Your task to perform on an android device: open app "PlayWell" (install if not already installed) Image 0: 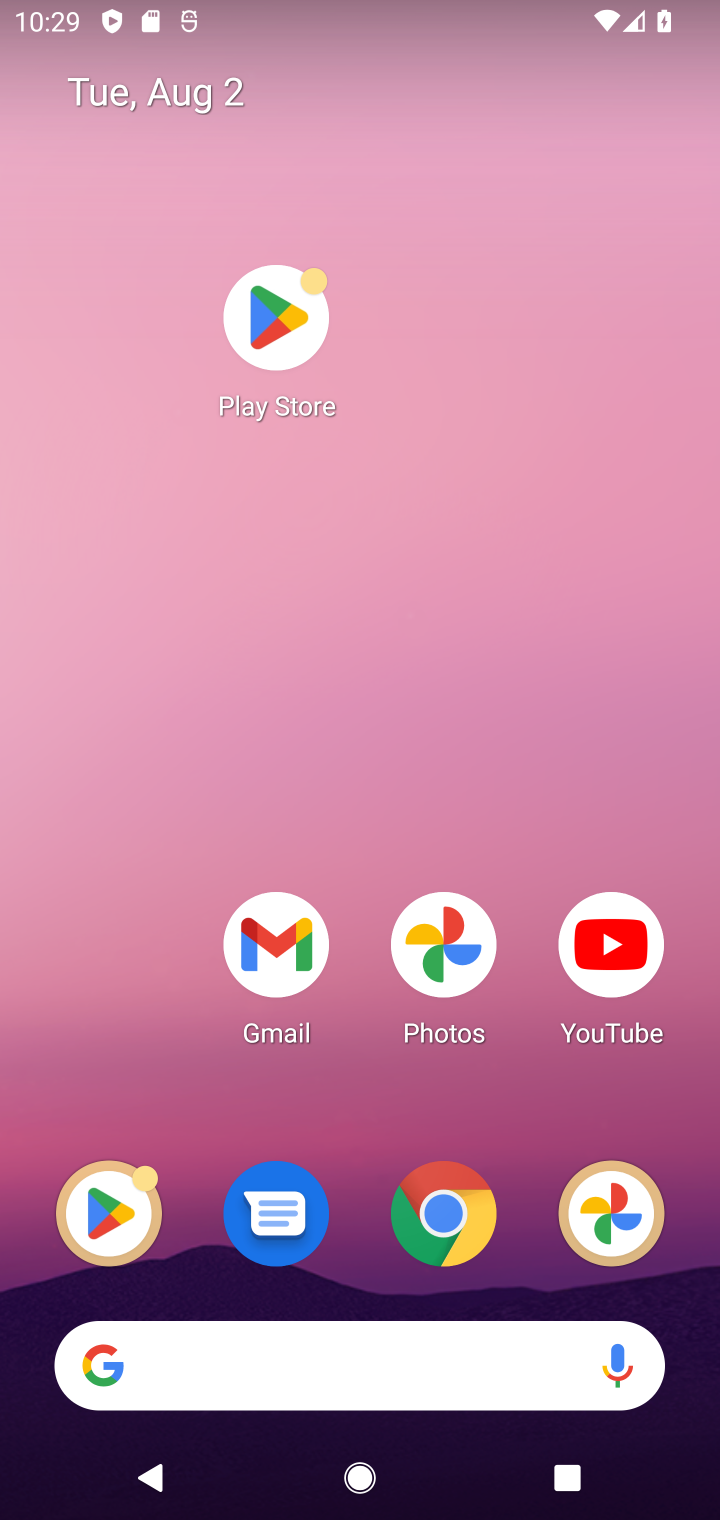
Step 0: click (275, 337)
Your task to perform on an android device: open app "PlayWell" (install if not already installed) Image 1: 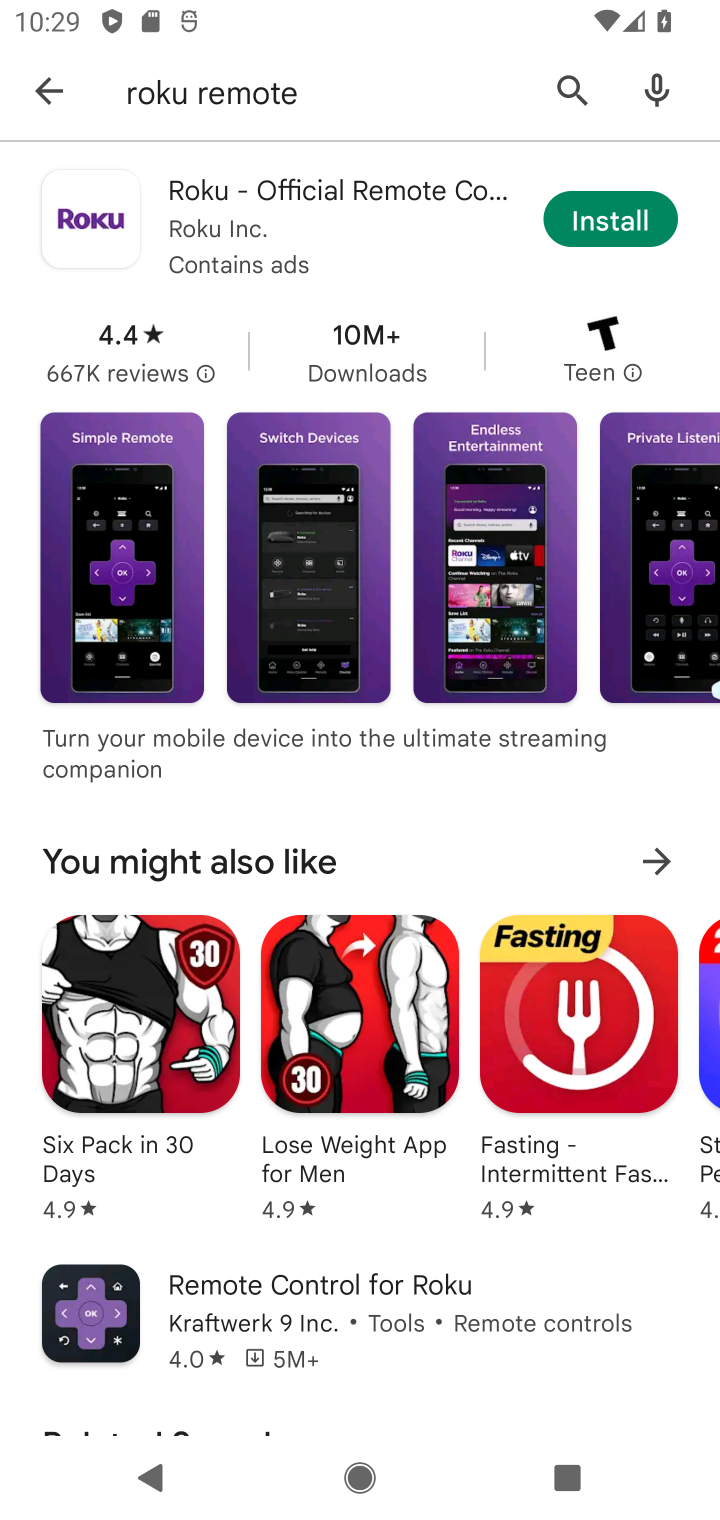
Step 1: click (358, 92)
Your task to perform on an android device: open app "PlayWell" (install if not already installed) Image 2: 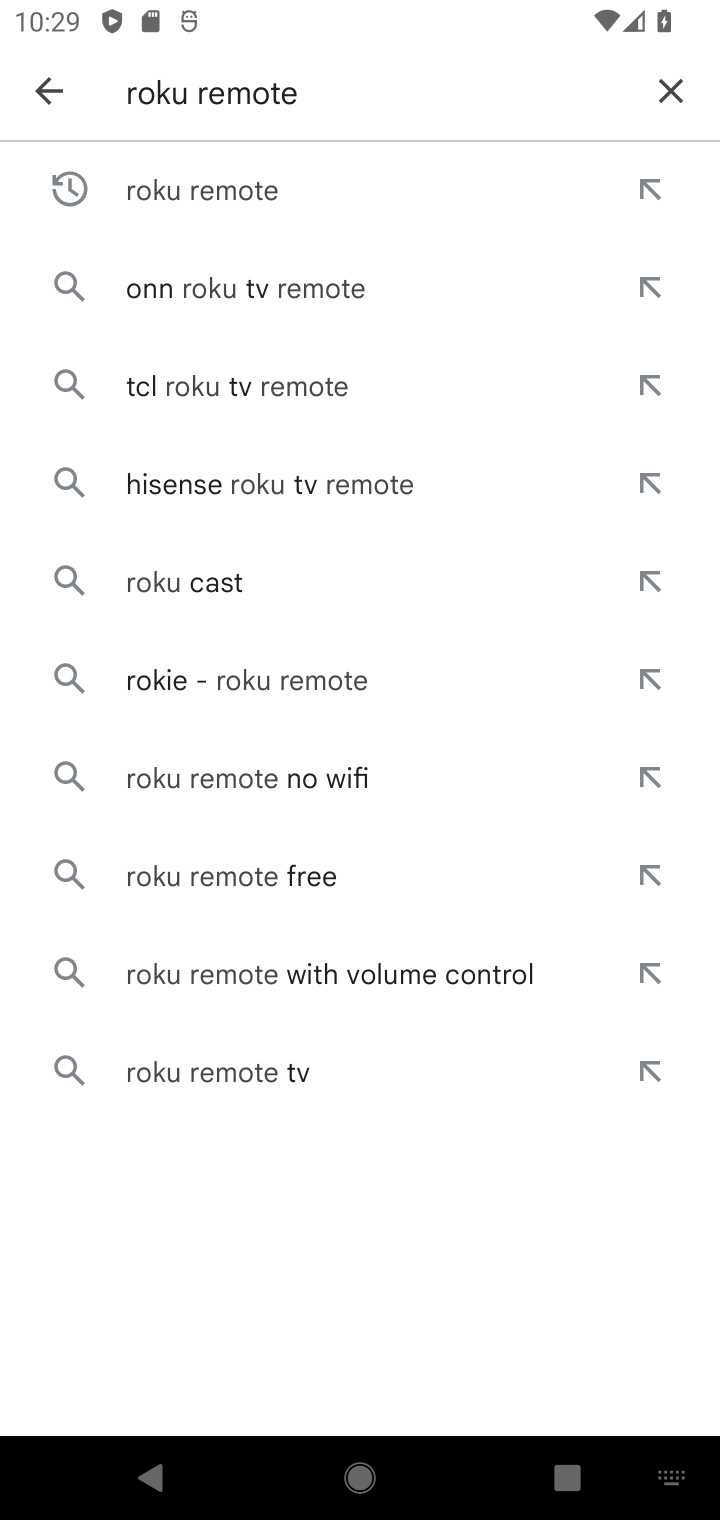
Step 2: click (680, 82)
Your task to perform on an android device: open app "PlayWell" (install if not already installed) Image 3: 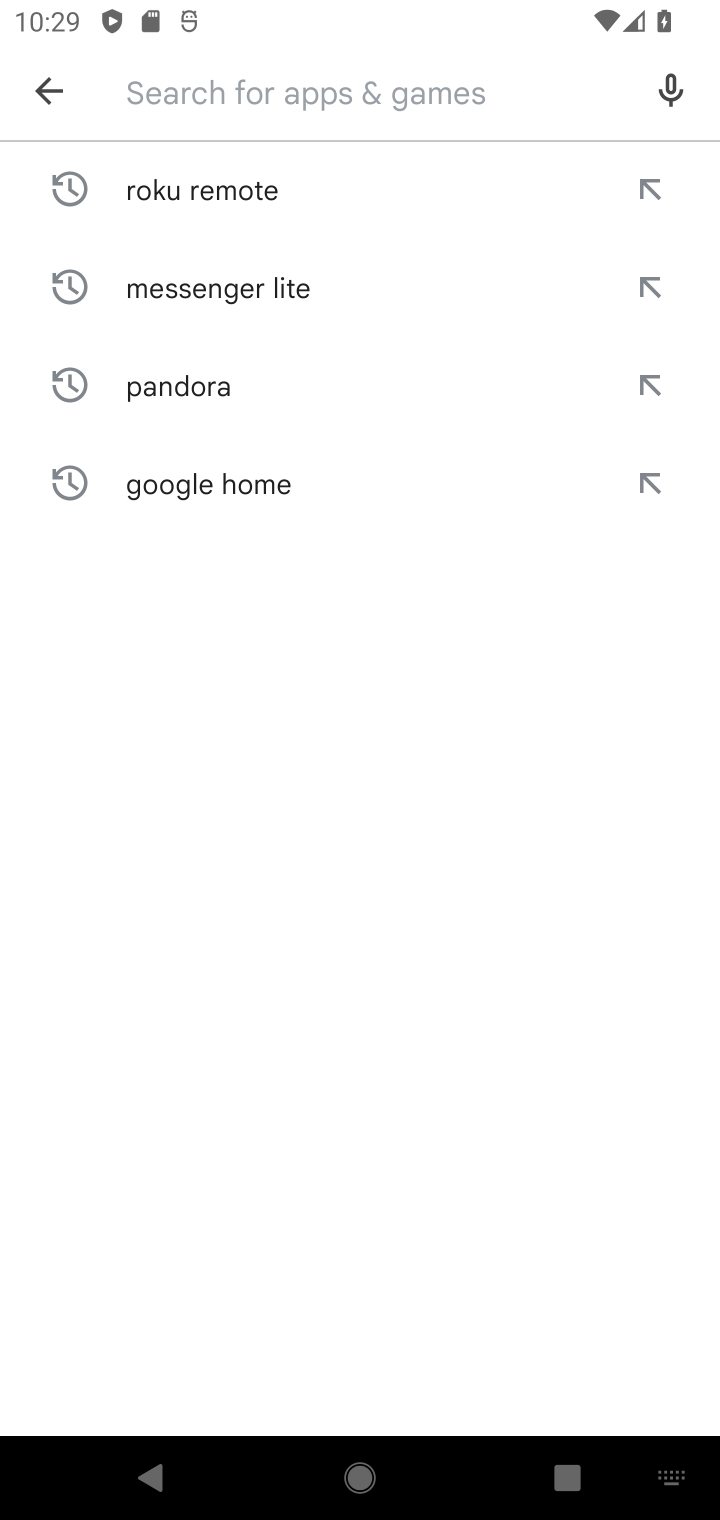
Step 3: type "playwell"
Your task to perform on an android device: open app "PlayWell" (install if not already installed) Image 4: 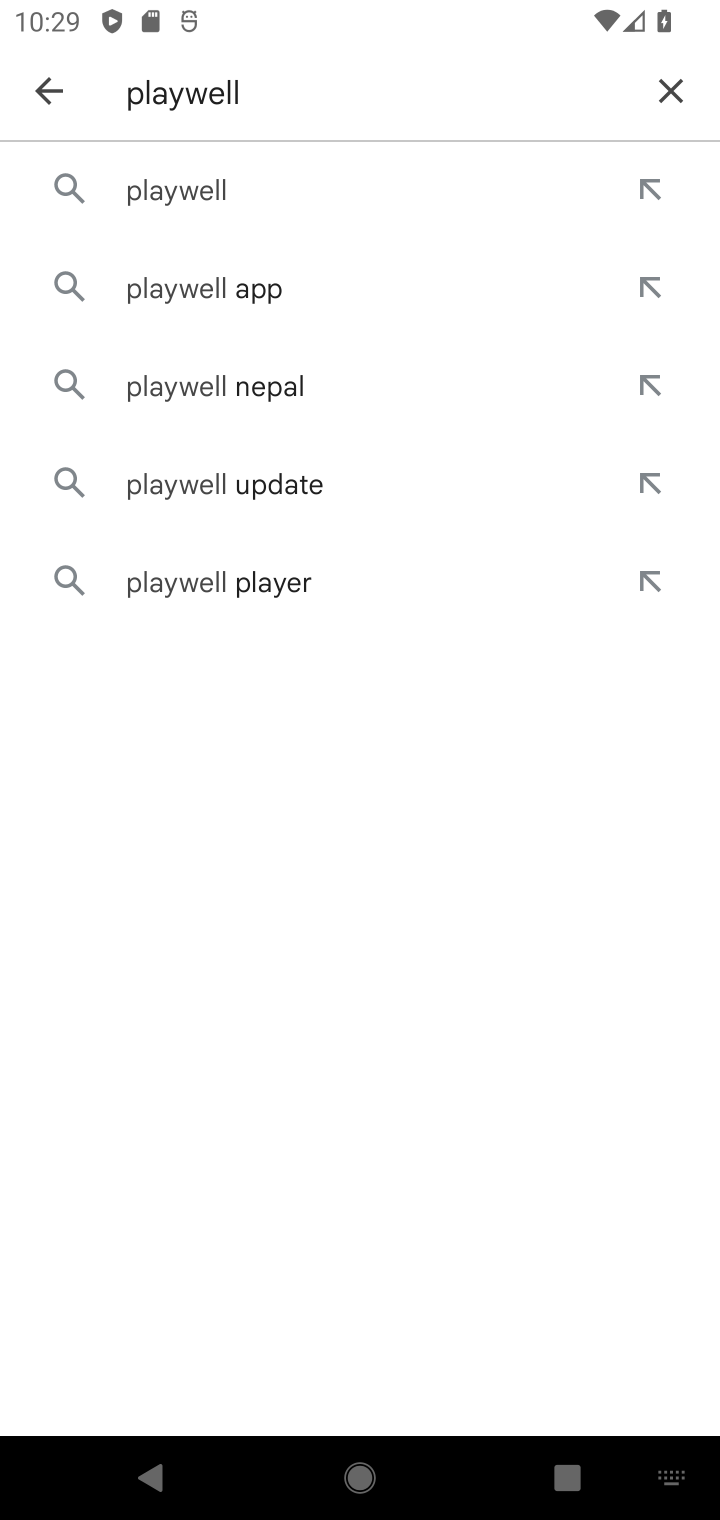
Step 4: click (274, 195)
Your task to perform on an android device: open app "PlayWell" (install if not already installed) Image 5: 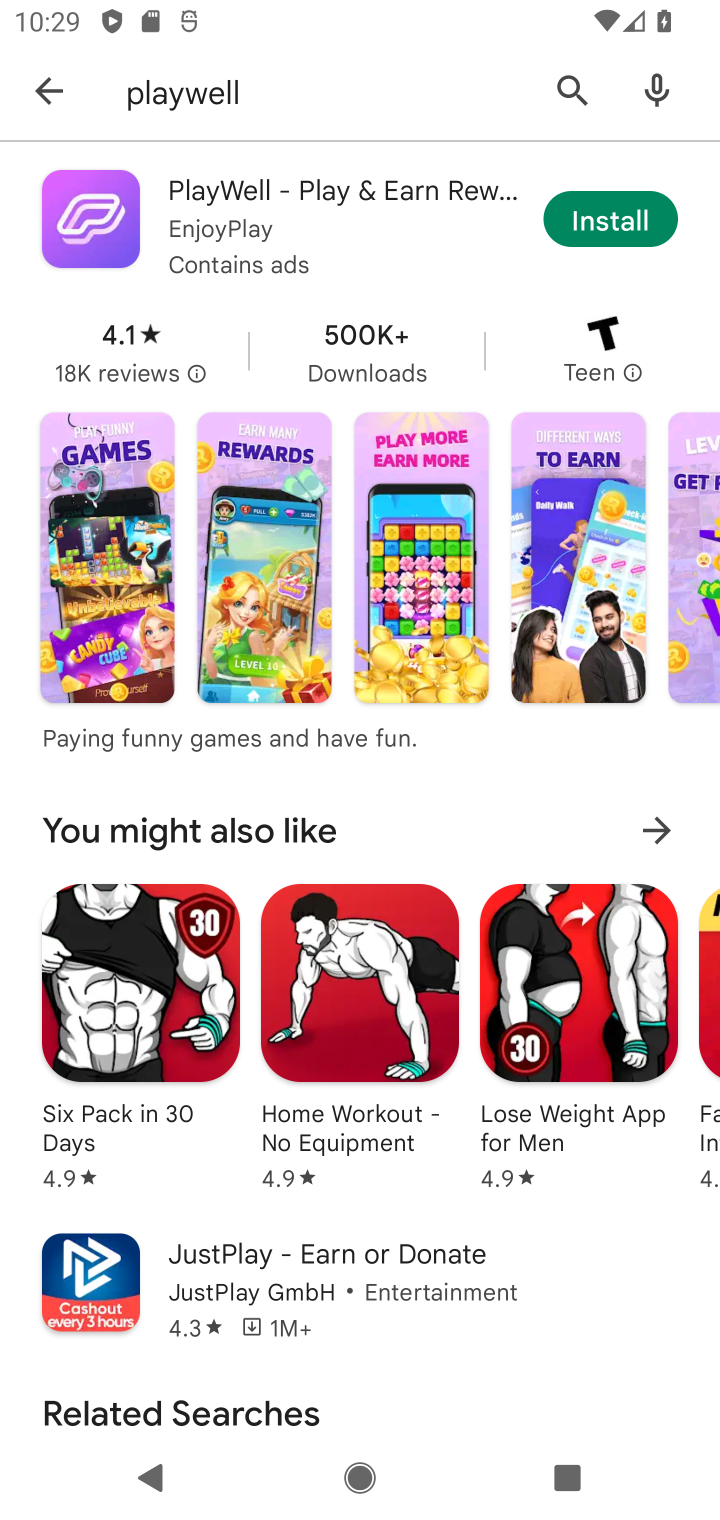
Step 5: click (651, 220)
Your task to perform on an android device: open app "PlayWell" (install if not already installed) Image 6: 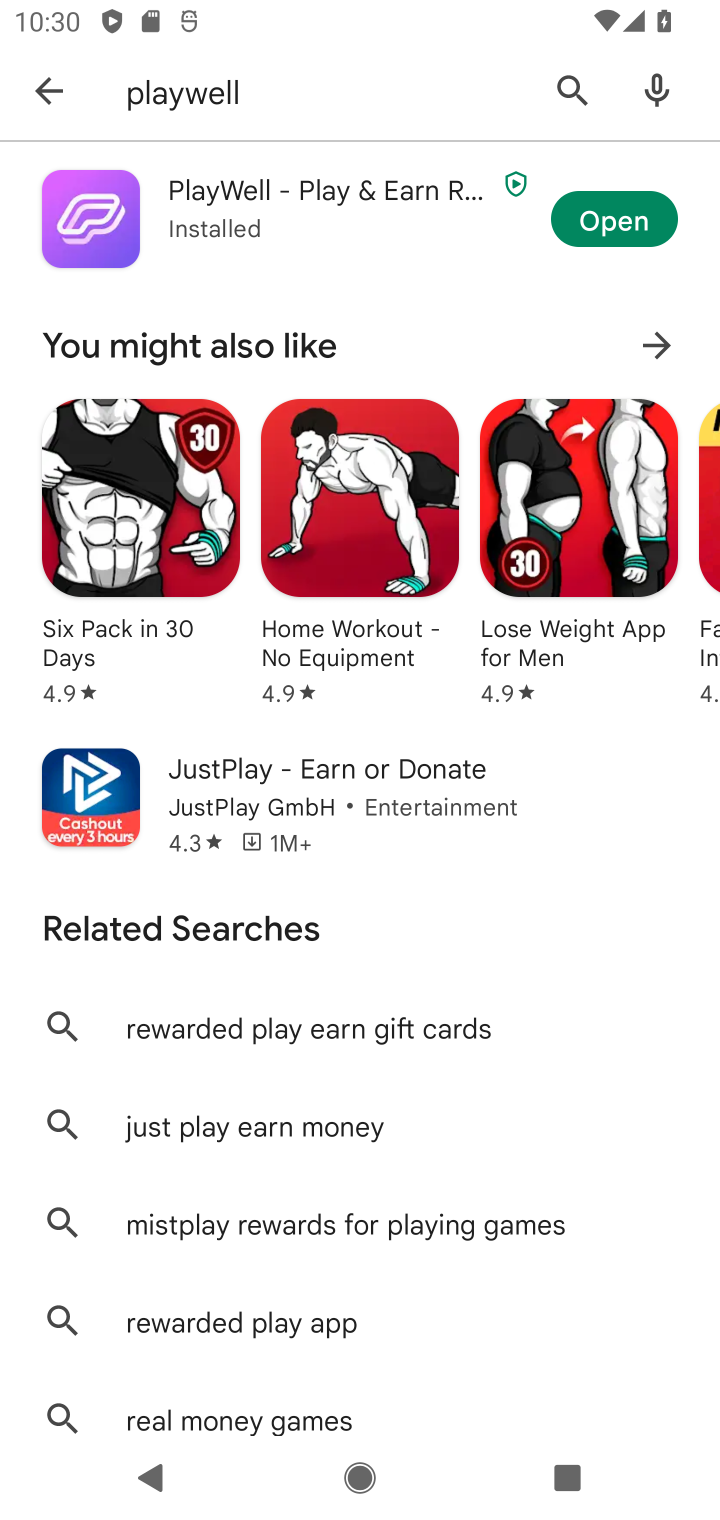
Step 6: click (644, 217)
Your task to perform on an android device: open app "PlayWell" (install if not already installed) Image 7: 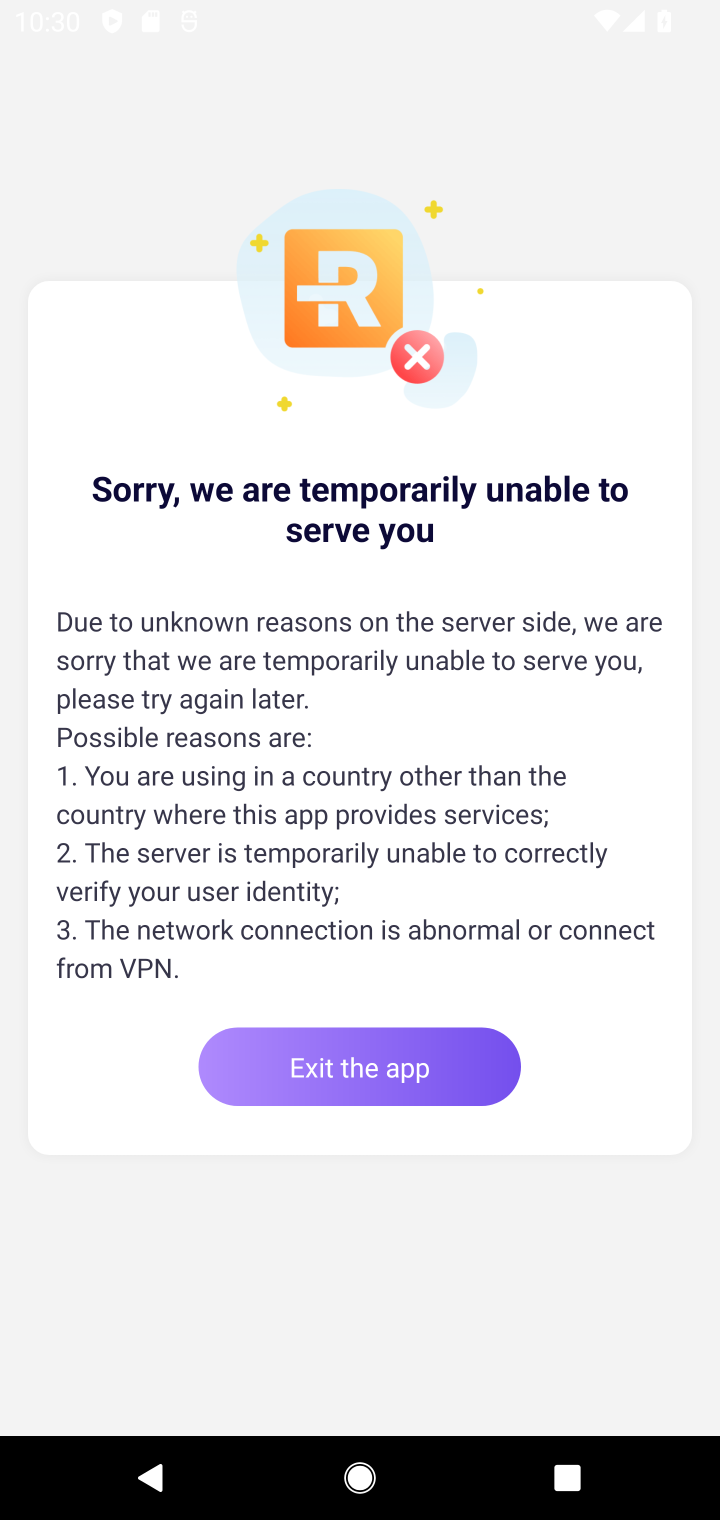
Step 7: task complete